Your task to perform on an android device: turn on location history Image 0: 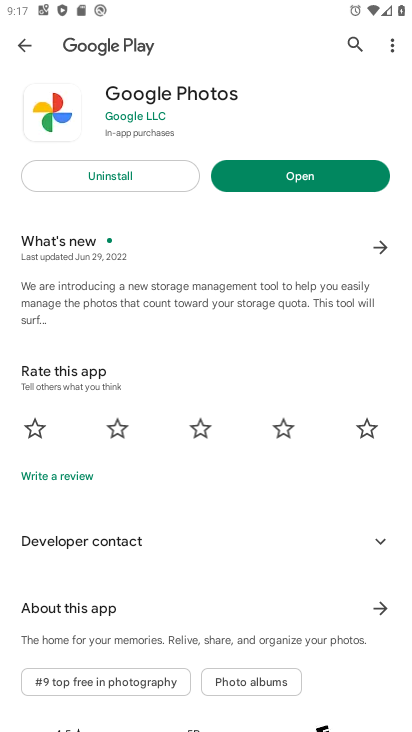
Step 0: press home button
Your task to perform on an android device: turn on location history Image 1: 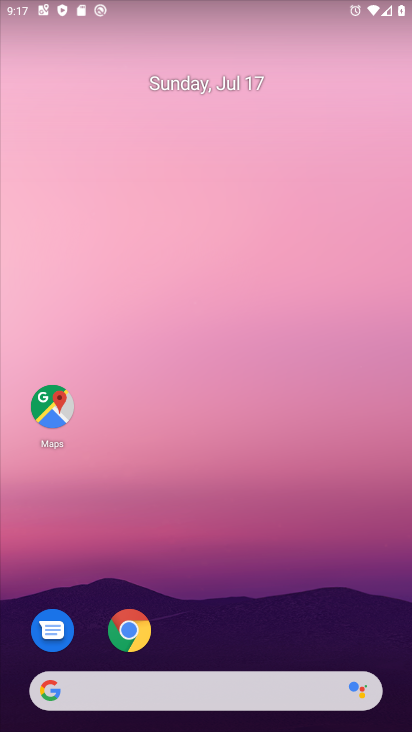
Step 1: drag from (335, 623) to (325, 86)
Your task to perform on an android device: turn on location history Image 2: 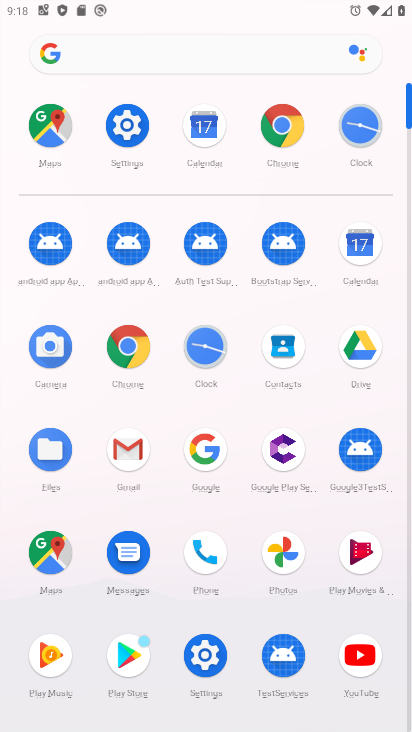
Step 2: click (131, 125)
Your task to perform on an android device: turn on location history Image 3: 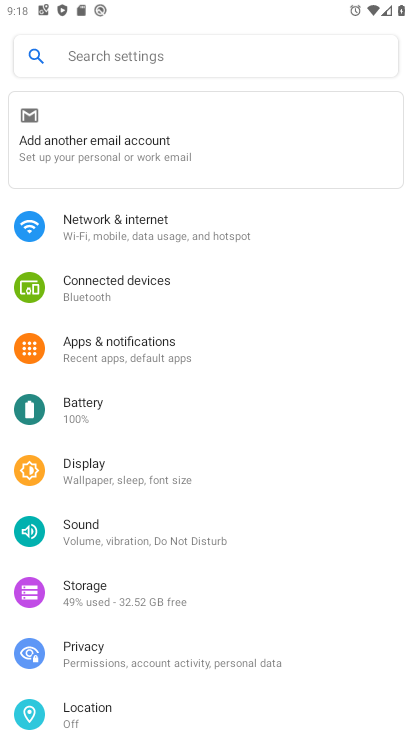
Step 3: drag from (352, 560) to (348, 477)
Your task to perform on an android device: turn on location history Image 4: 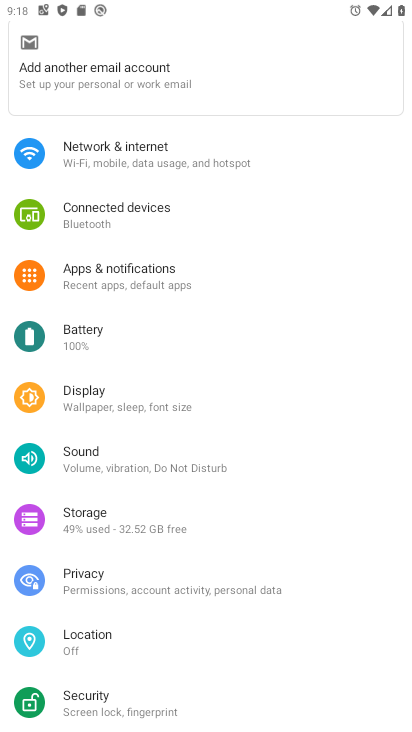
Step 4: drag from (364, 616) to (377, 510)
Your task to perform on an android device: turn on location history Image 5: 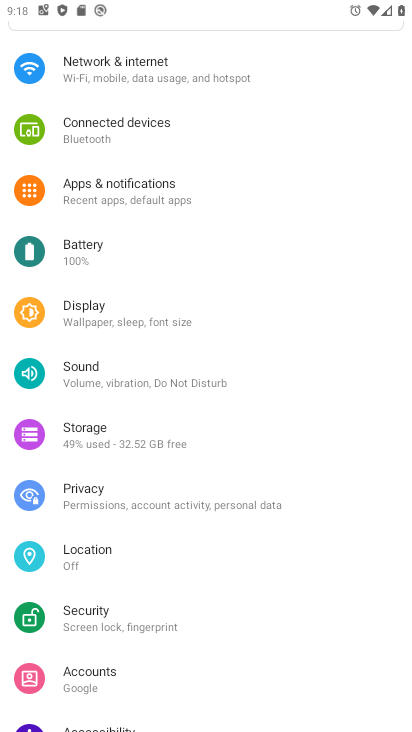
Step 5: drag from (345, 627) to (348, 487)
Your task to perform on an android device: turn on location history Image 6: 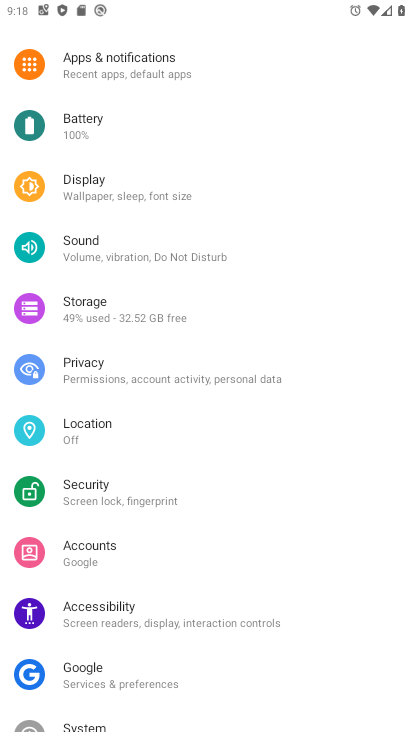
Step 6: drag from (337, 606) to (338, 524)
Your task to perform on an android device: turn on location history Image 7: 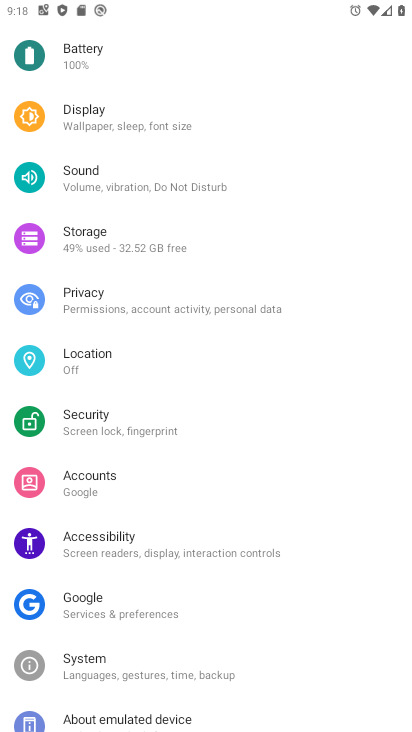
Step 7: drag from (345, 615) to (328, 501)
Your task to perform on an android device: turn on location history Image 8: 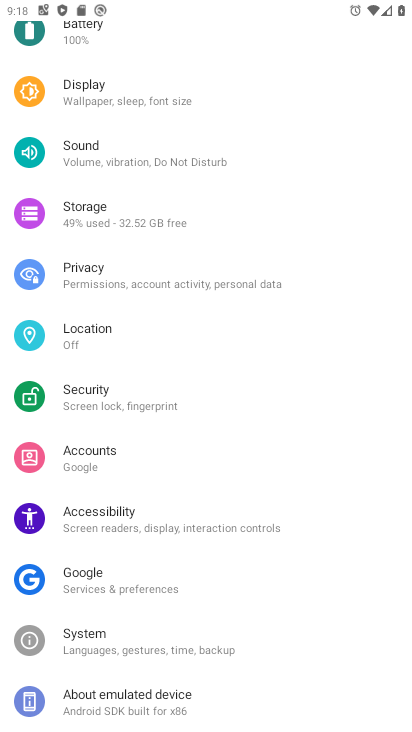
Step 8: drag from (328, 335) to (327, 498)
Your task to perform on an android device: turn on location history Image 9: 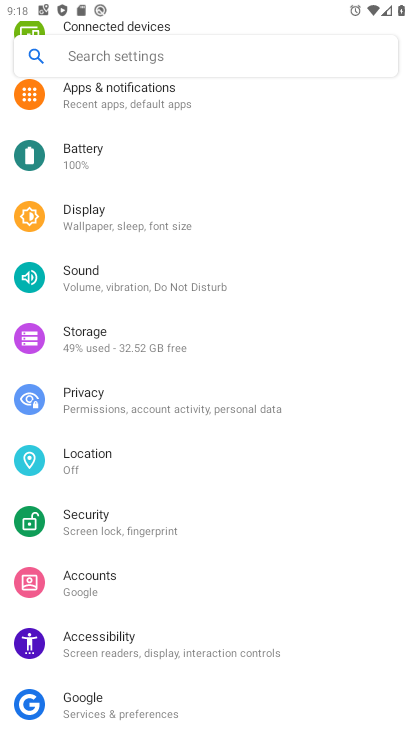
Step 9: drag from (342, 358) to (347, 453)
Your task to perform on an android device: turn on location history Image 10: 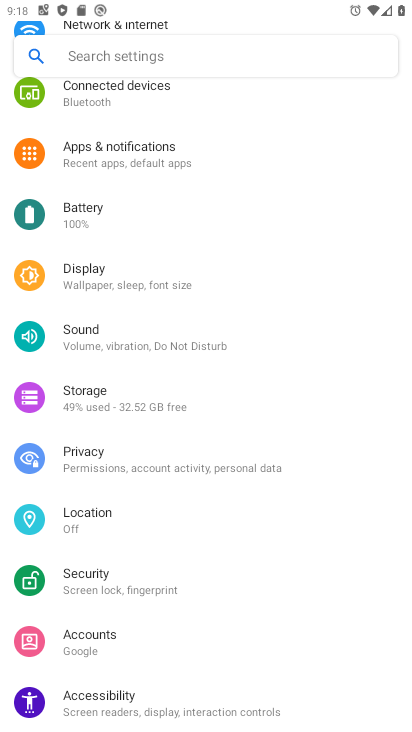
Step 10: click (226, 514)
Your task to perform on an android device: turn on location history Image 11: 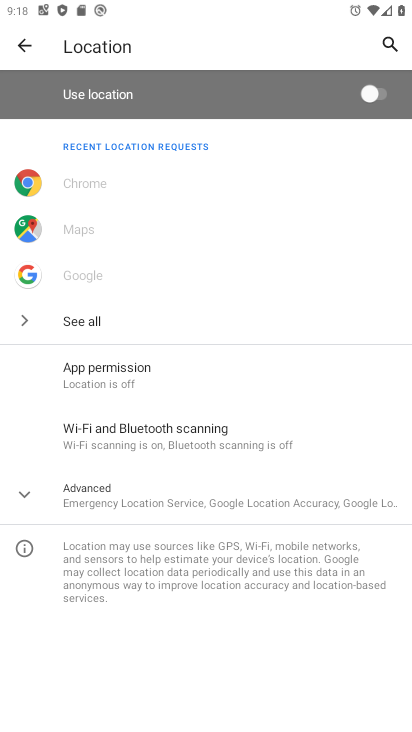
Step 11: click (214, 495)
Your task to perform on an android device: turn on location history Image 12: 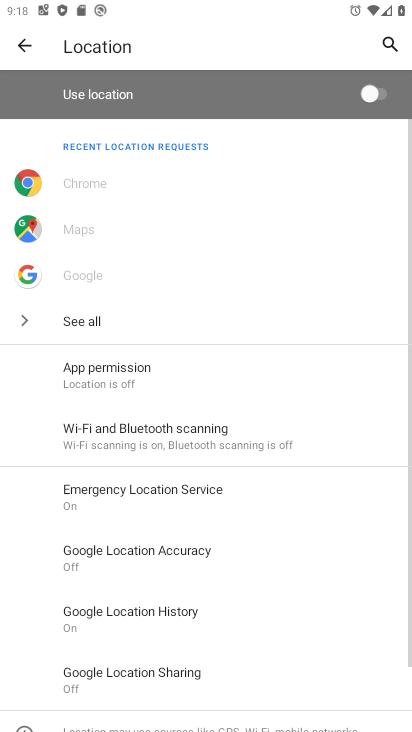
Step 12: task complete